Your task to perform on an android device: check storage Image 0: 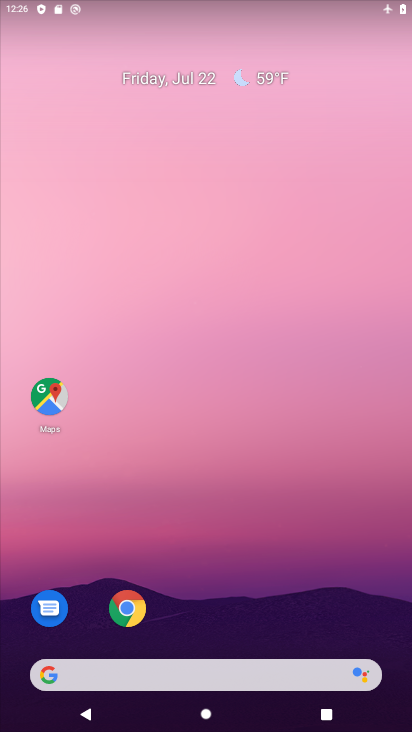
Step 0: drag from (200, 641) to (230, 7)
Your task to perform on an android device: check storage Image 1: 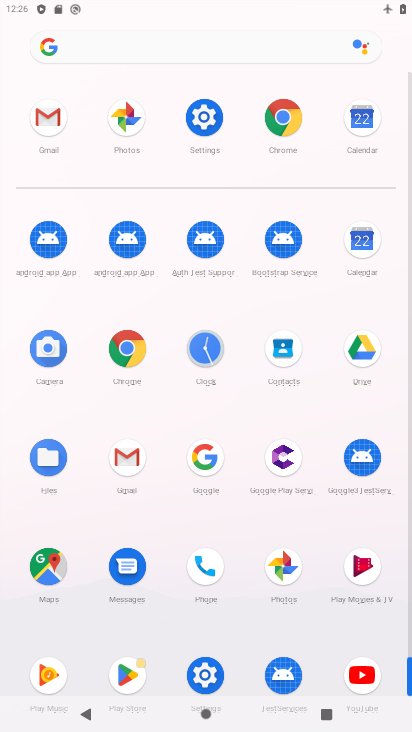
Step 1: click (210, 123)
Your task to perform on an android device: check storage Image 2: 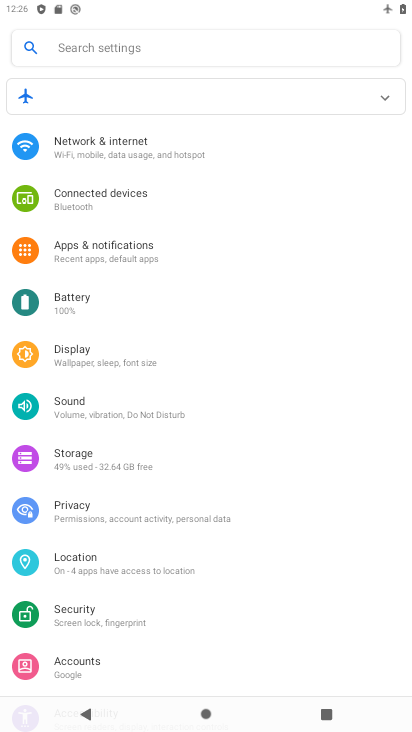
Step 2: drag from (128, 548) to (145, 247)
Your task to perform on an android device: check storage Image 3: 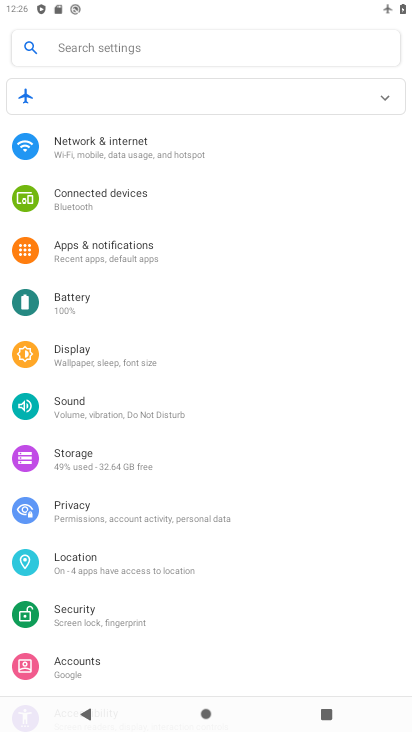
Step 3: click (117, 468)
Your task to perform on an android device: check storage Image 4: 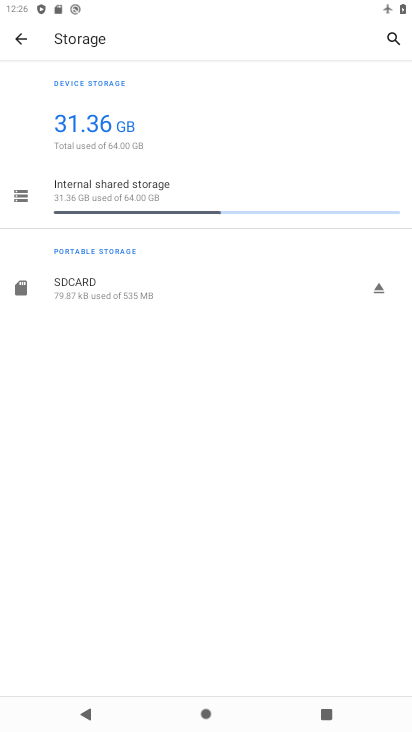
Step 4: click (123, 201)
Your task to perform on an android device: check storage Image 5: 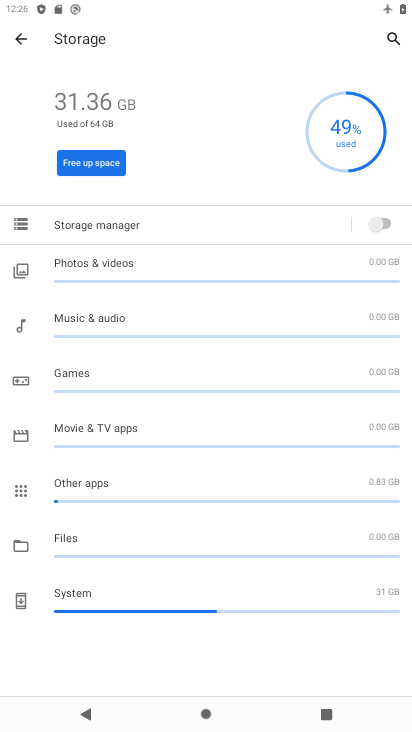
Step 5: task complete